Your task to perform on an android device: add a contact Image 0: 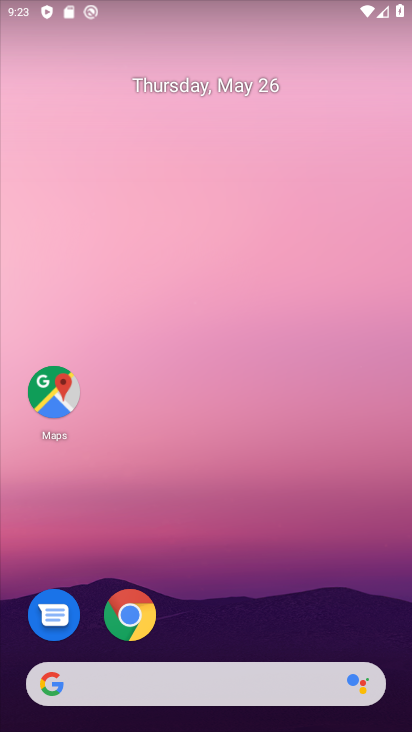
Step 0: drag from (126, 724) to (125, 11)
Your task to perform on an android device: add a contact Image 1: 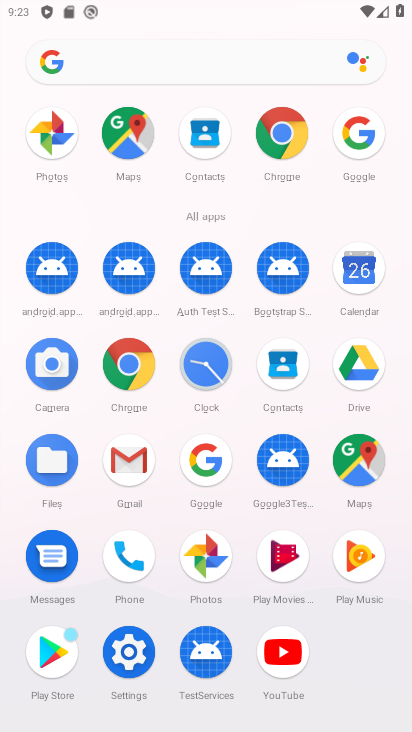
Step 1: click (275, 374)
Your task to perform on an android device: add a contact Image 2: 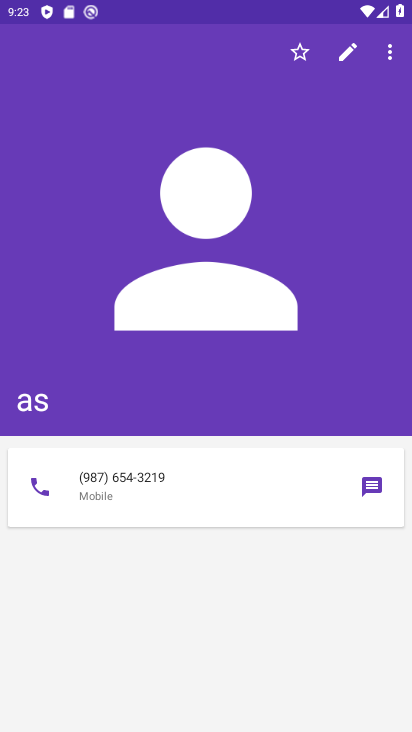
Step 2: press back button
Your task to perform on an android device: add a contact Image 3: 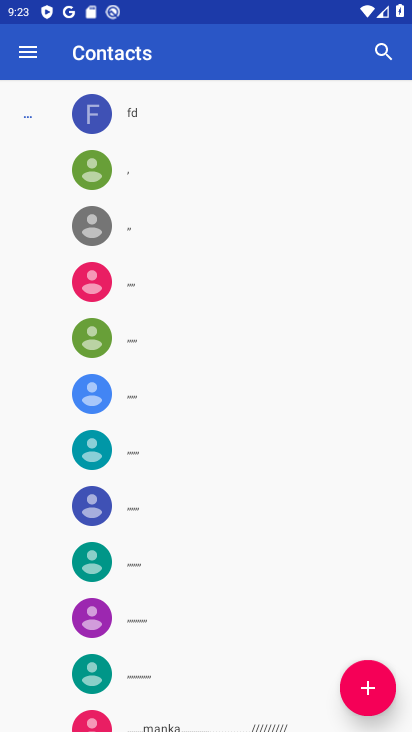
Step 3: click (373, 688)
Your task to perform on an android device: add a contact Image 4: 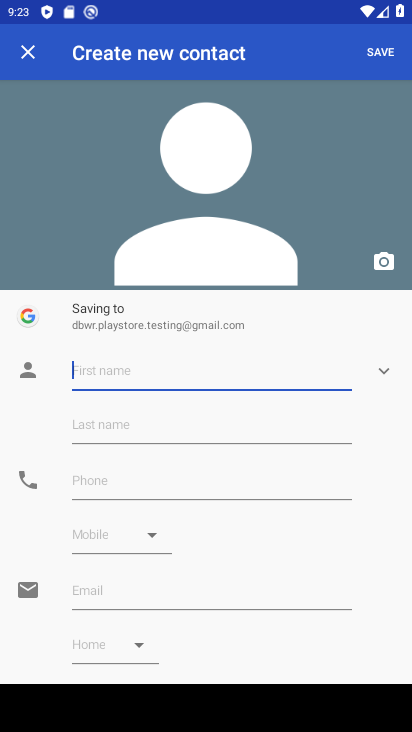
Step 4: type "hvujj"
Your task to perform on an android device: add a contact Image 5: 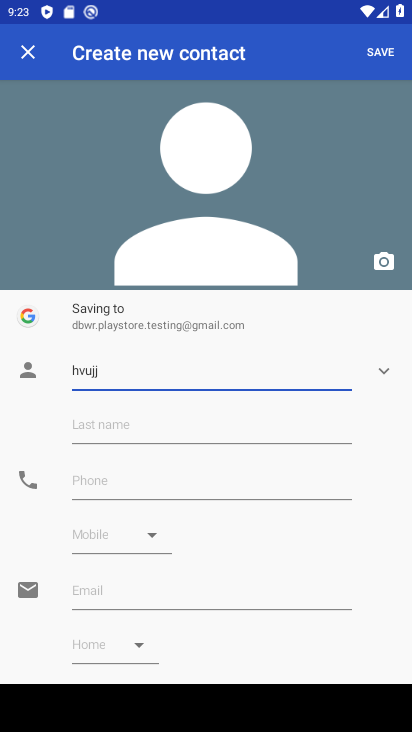
Step 5: click (210, 494)
Your task to perform on an android device: add a contact Image 6: 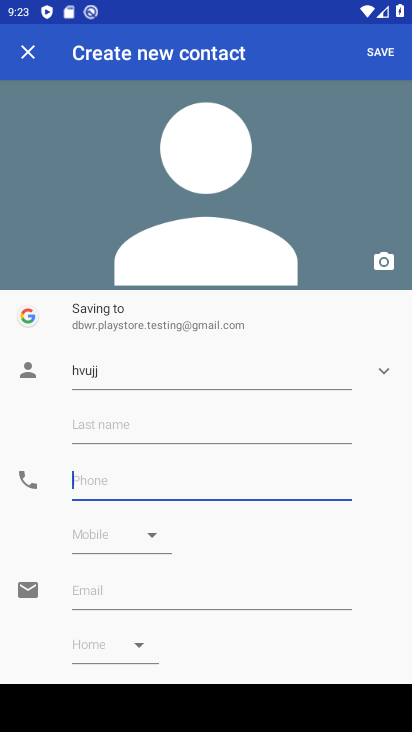
Step 6: type "3421776543"
Your task to perform on an android device: add a contact Image 7: 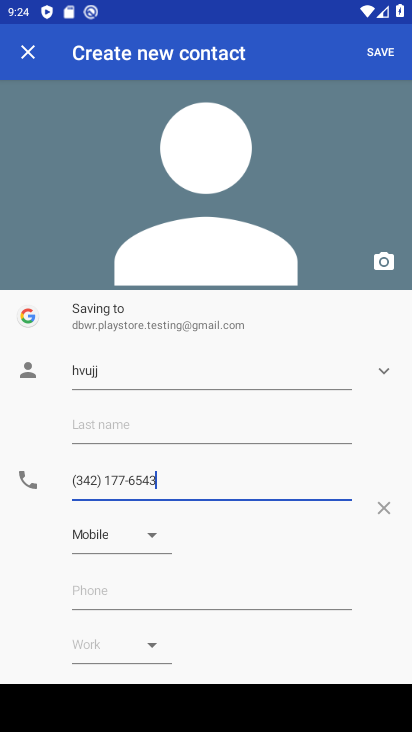
Step 7: click (381, 54)
Your task to perform on an android device: add a contact Image 8: 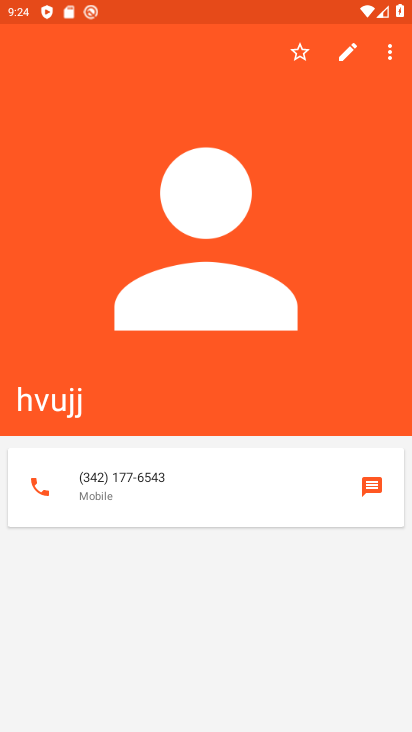
Step 8: task complete